Your task to perform on an android device: check battery use Image 0: 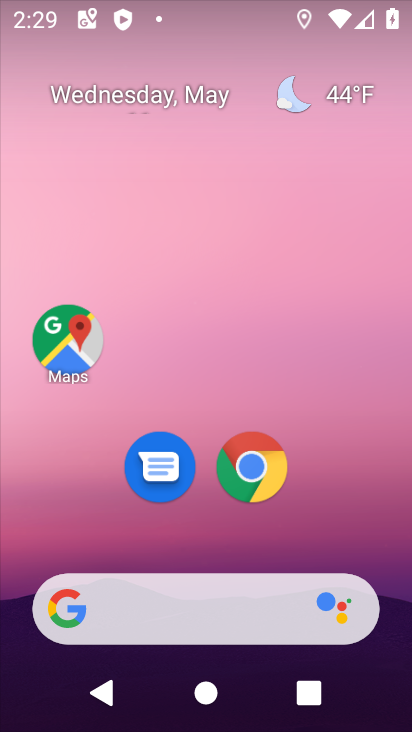
Step 0: click (243, 63)
Your task to perform on an android device: check battery use Image 1: 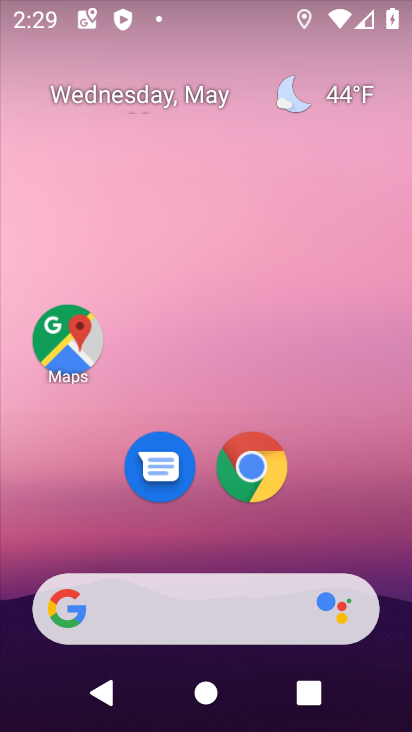
Step 1: drag from (339, 537) to (192, 4)
Your task to perform on an android device: check battery use Image 2: 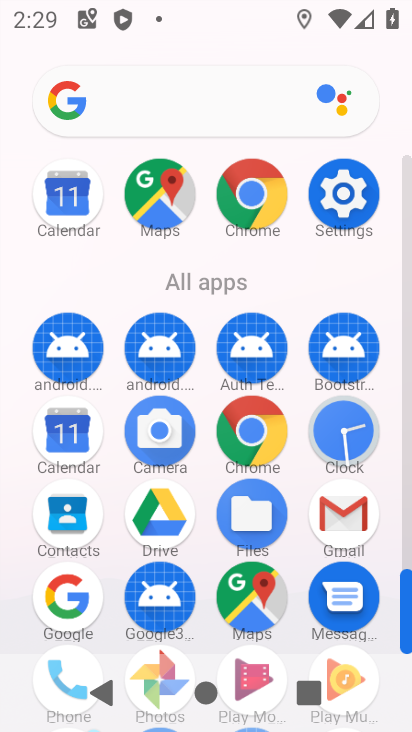
Step 2: click (334, 200)
Your task to perform on an android device: check battery use Image 3: 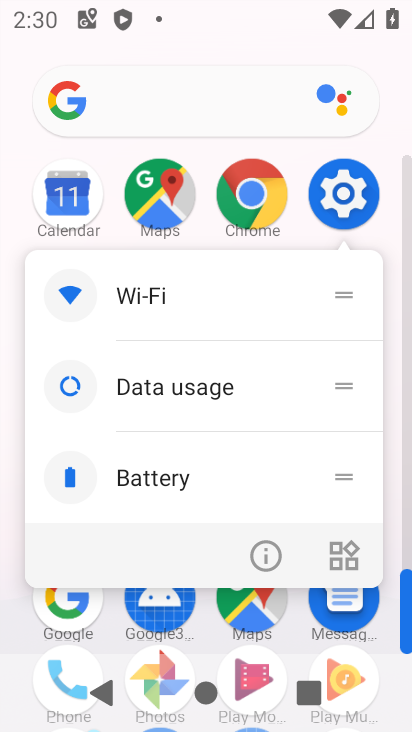
Step 3: click (340, 197)
Your task to perform on an android device: check battery use Image 4: 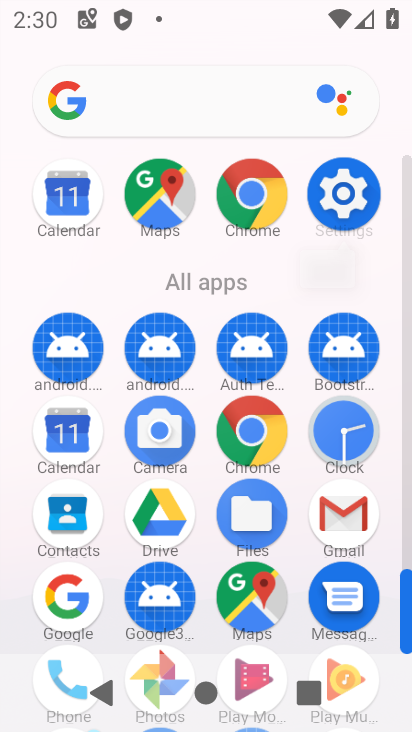
Step 4: click (339, 199)
Your task to perform on an android device: check battery use Image 5: 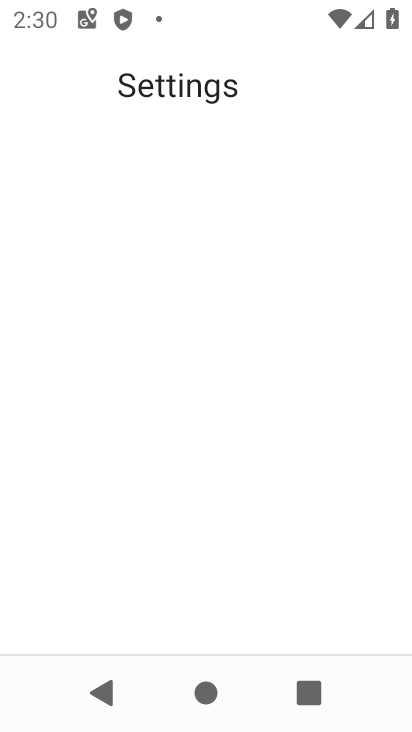
Step 5: click (340, 200)
Your task to perform on an android device: check battery use Image 6: 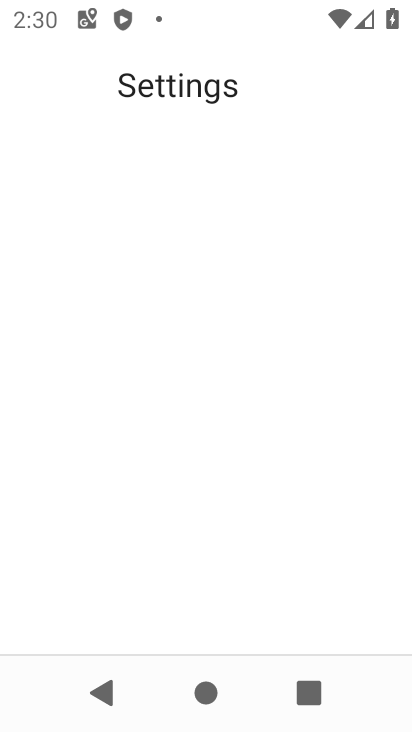
Step 6: click (339, 200)
Your task to perform on an android device: check battery use Image 7: 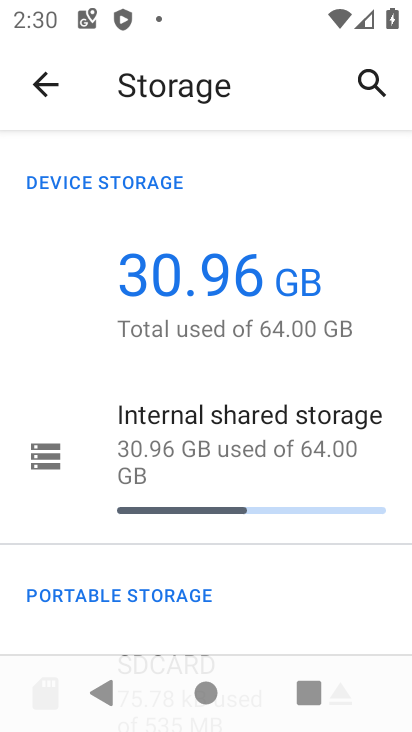
Step 7: click (53, 95)
Your task to perform on an android device: check battery use Image 8: 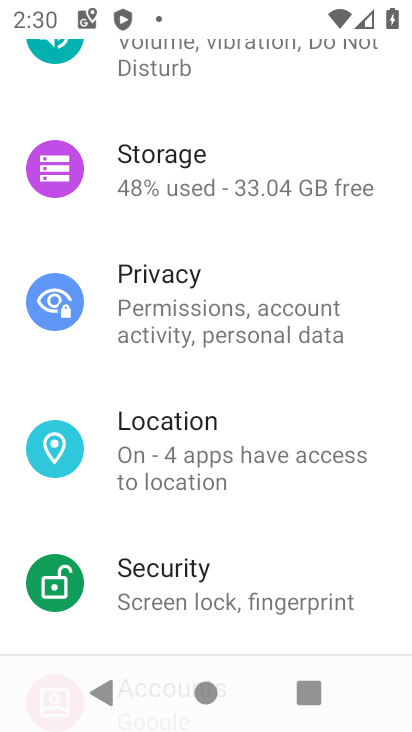
Step 8: drag from (213, 484) to (140, 82)
Your task to perform on an android device: check battery use Image 9: 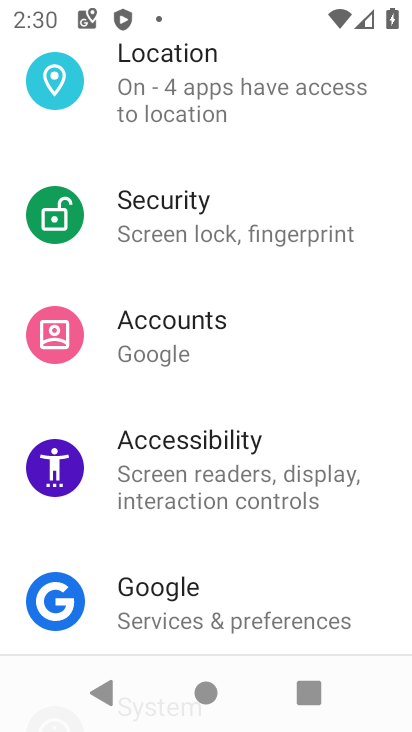
Step 9: drag from (212, 414) to (164, 111)
Your task to perform on an android device: check battery use Image 10: 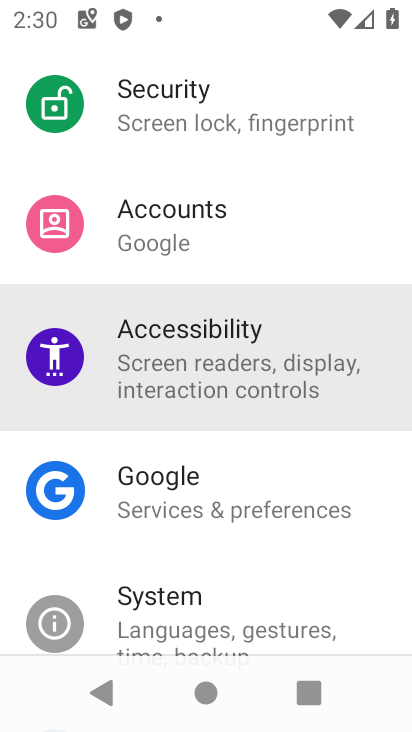
Step 10: drag from (192, 439) to (115, 126)
Your task to perform on an android device: check battery use Image 11: 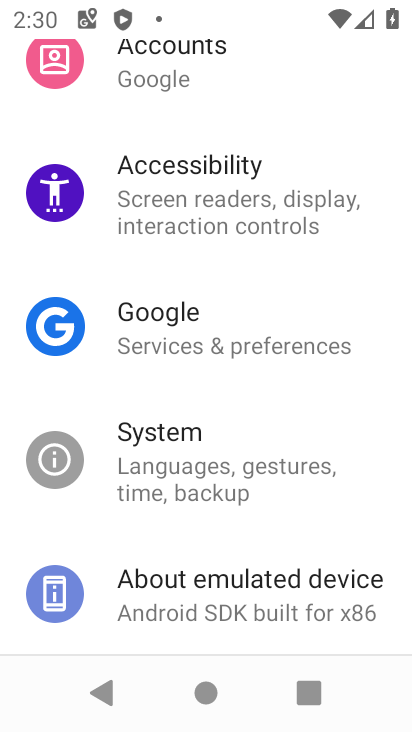
Step 11: drag from (179, 461) to (139, 191)
Your task to perform on an android device: check battery use Image 12: 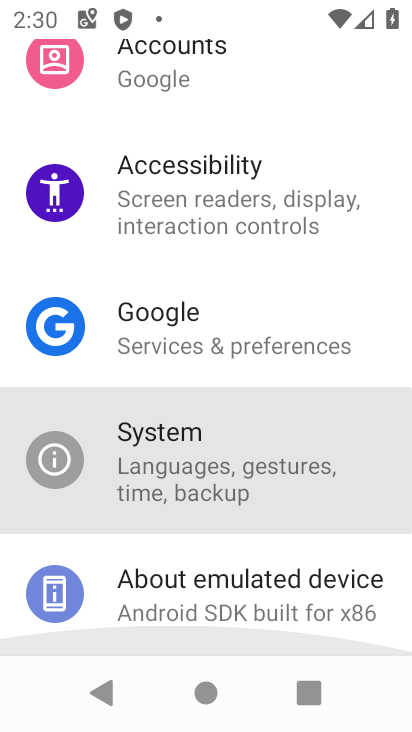
Step 12: drag from (215, 524) to (163, 206)
Your task to perform on an android device: check battery use Image 13: 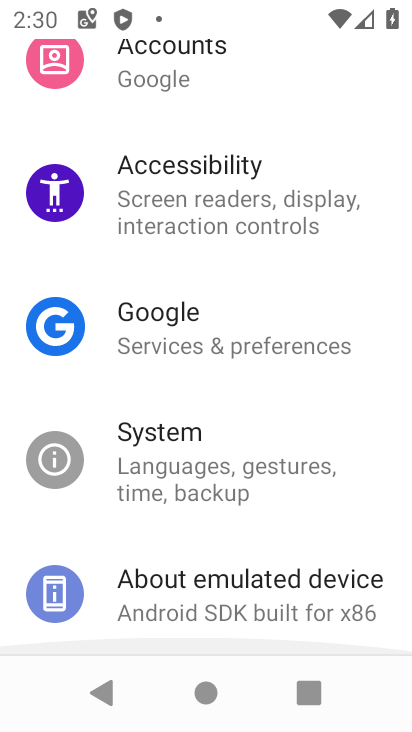
Step 13: drag from (209, 432) to (192, 256)
Your task to perform on an android device: check battery use Image 14: 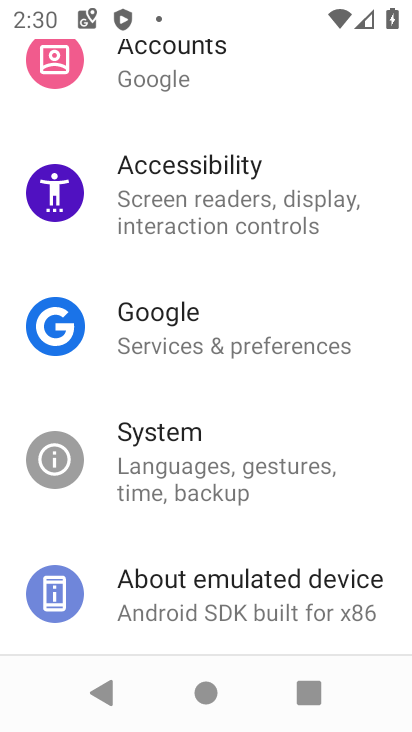
Step 14: click (197, 273)
Your task to perform on an android device: check battery use Image 15: 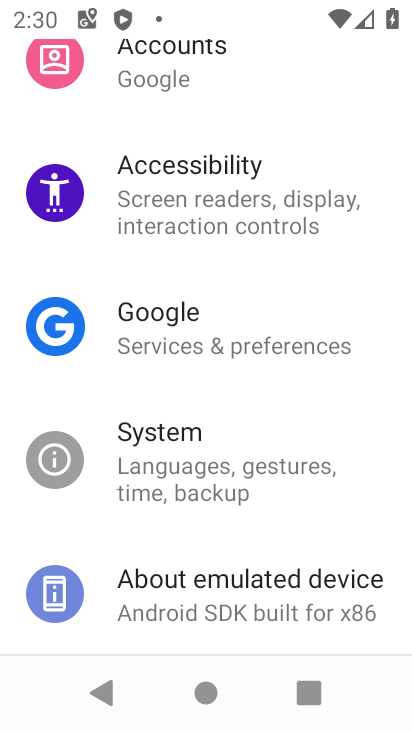
Step 15: drag from (183, 215) to (187, 470)
Your task to perform on an android device: check battery use Image 16: 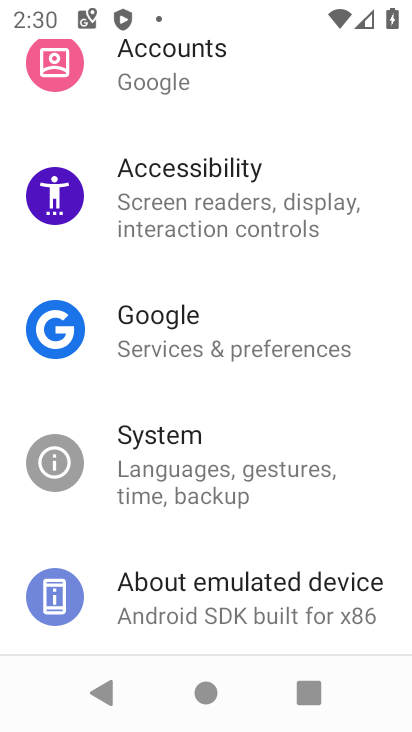
Step 16: drag from (173, 235) to (261, 619)
Your task to perform on an android device: check battery use Image 17: 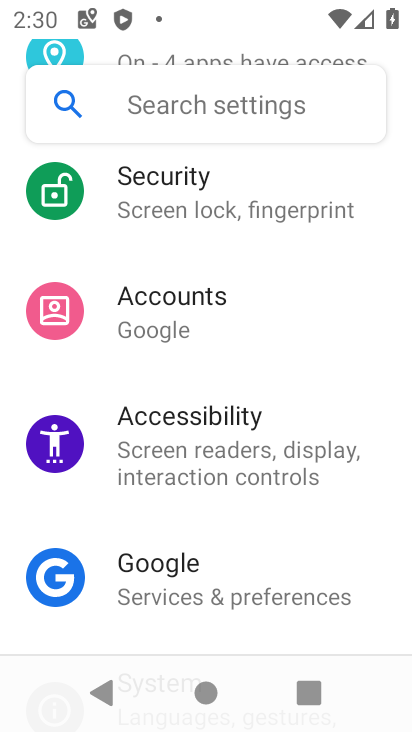
Step 17: drag from (146, 142) to (182, 420)
Your task to perform on an android device: check battery use Image 18: 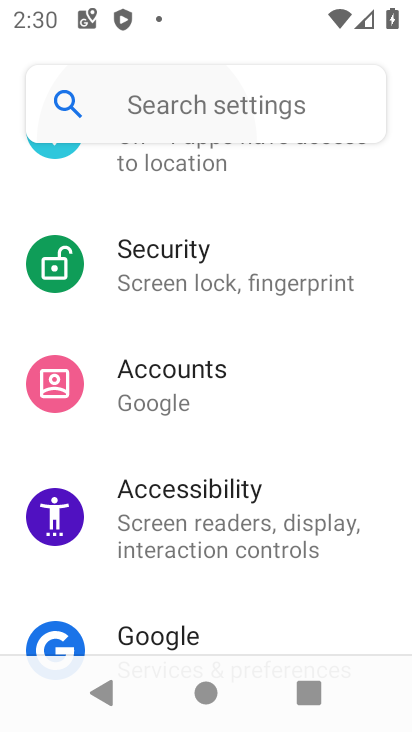
Step 18: drag from (182, 276) to (231, 510)
Your task to perform on an android device: check battery use Image 19: 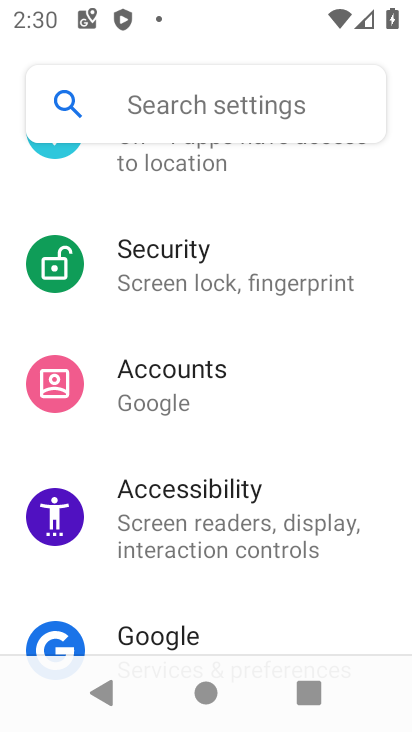
Step 19: drag from (222, 311) to (239, 501)
Your task to perform on an android device: check battery use Image 20: 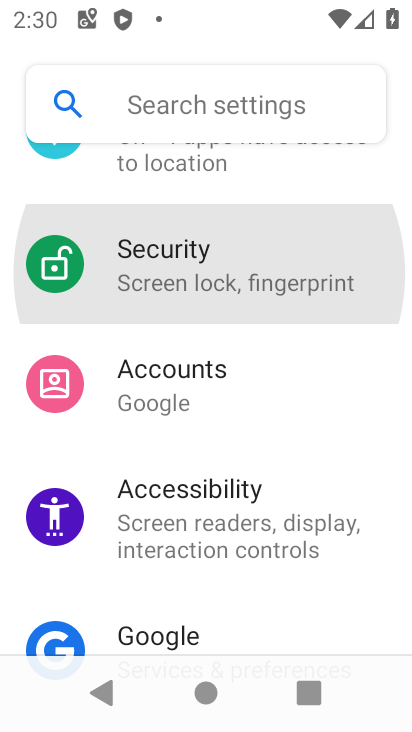
Step 20: drag from (174, 319) to (205, 524)
Your task to perform on an android device: check battery use Image 21: 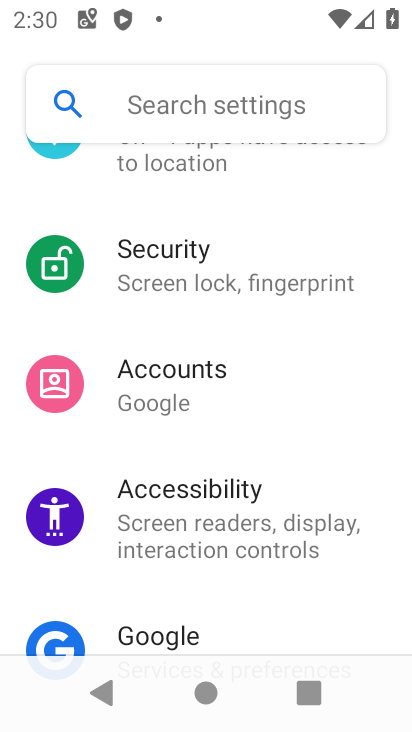
Step 21: drag from (165, 293) to (223, 435)
Your task to perform on an android device: check battery use Image 22: 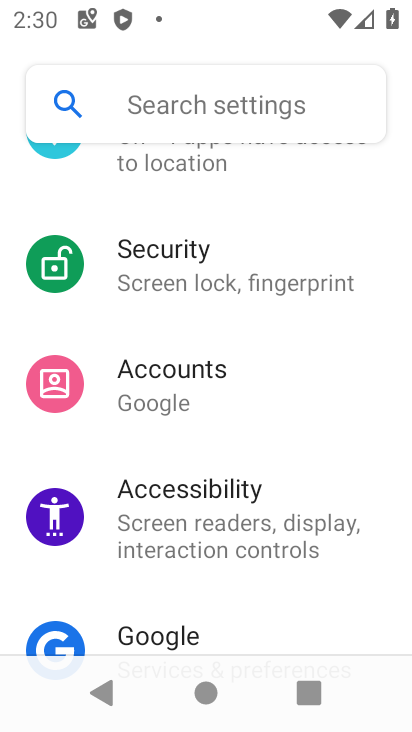
Step 22: drag from (163, 216) to (200, 490)
Your task to perform on an android device: check battery use Image 23: 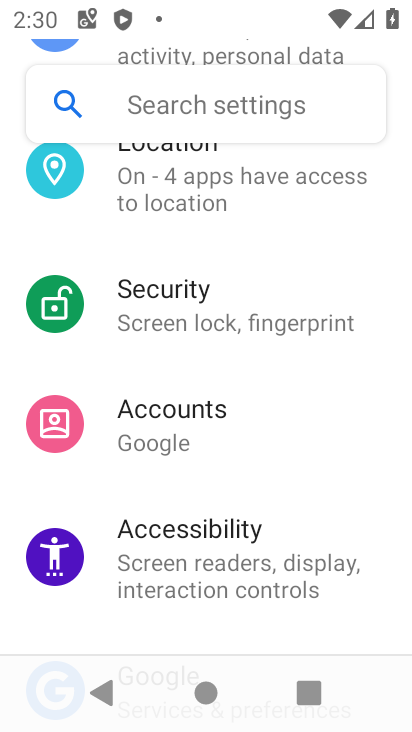
Step 23: drag from (188, 406) to (207, 482)
Your task to perform on an android device: check battery use Image 24: 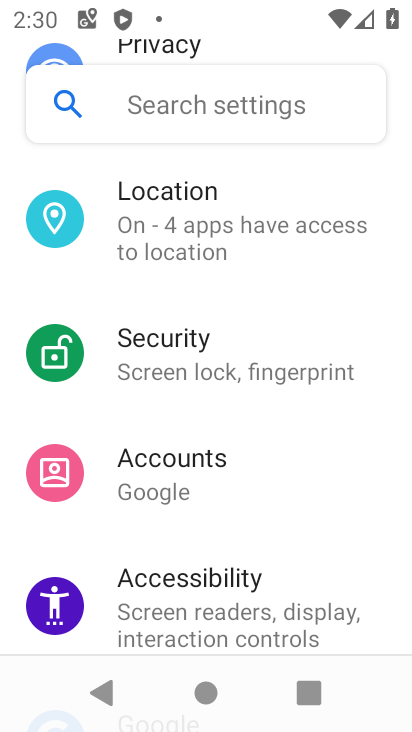
Step 24: drag from (156, 286) to (158, 643)
Your task to perform on an android device: check battery use Image 25: 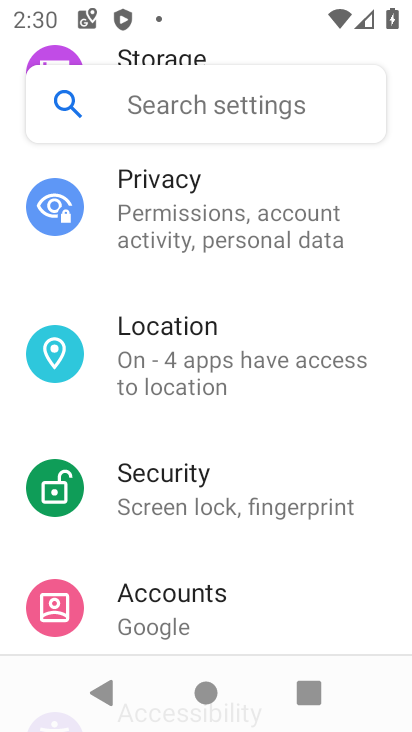
Step 25: drag from (111, 256) to (172, 485)
Your task to perform on an android device: check battery use Image 26: 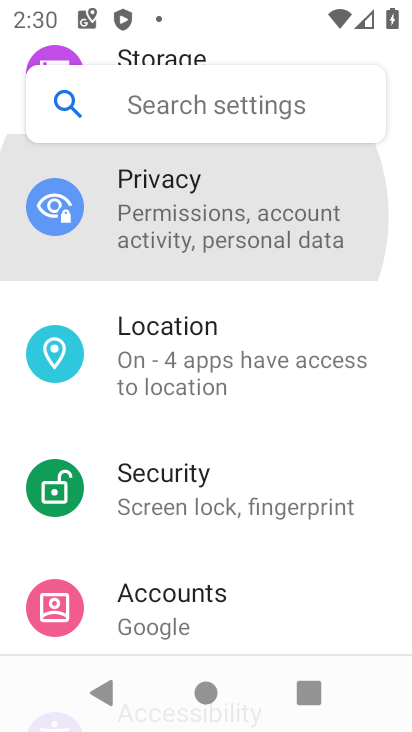
Step 26: drag from (137, 268) to (168, 475)
Your task to perform on an android device: check battery use Image 27: 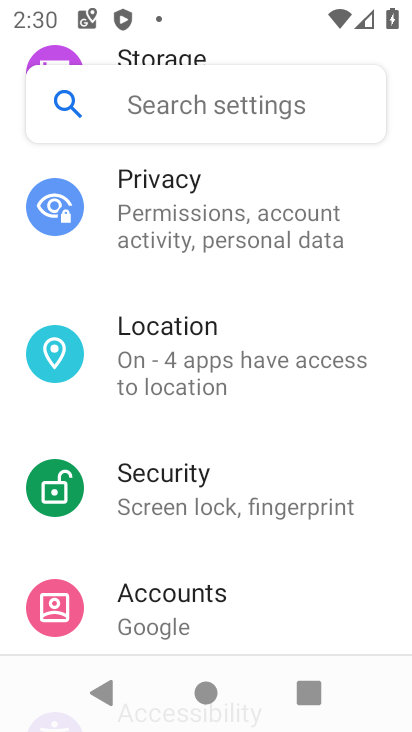
Step 27: drag from (166, 251) to (186, 520)
Your task to perform on an android device: check battery use Image 28: 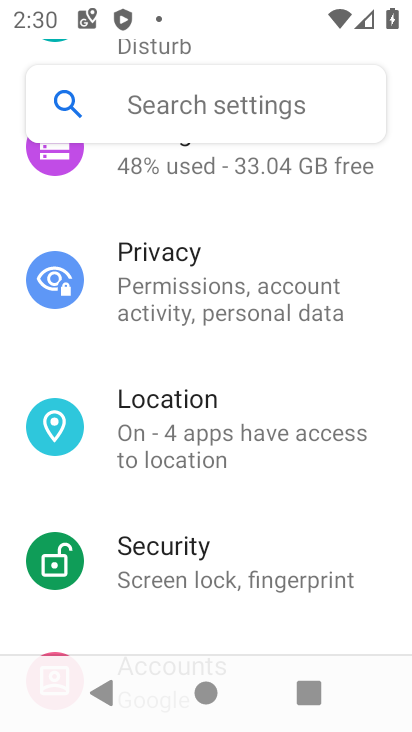
Step 28: drag from (215, 325) to (240, 491)
Your task to perform on an android device: check battery use Image 29: 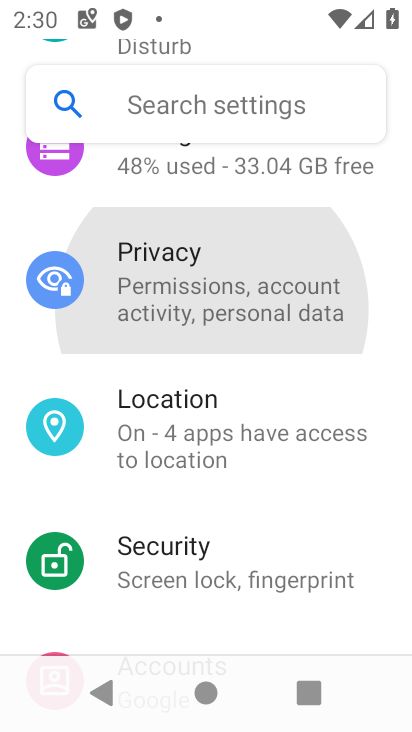
Step 29: drag from (210, 111) to (254, 422)
Your task to perform on an android device: check battery use Image 30: 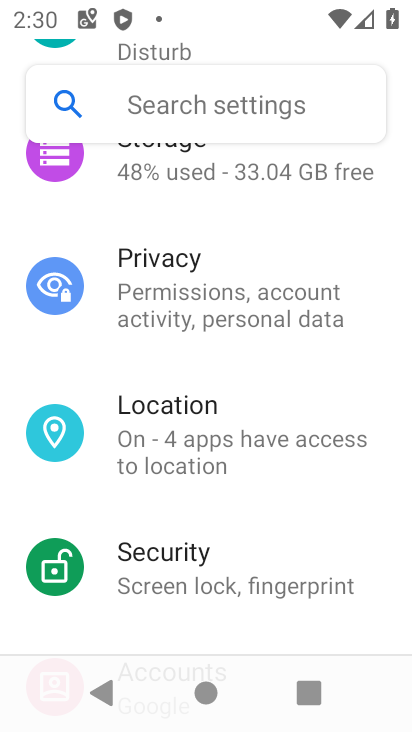
Step 30: click (208, 444)
Your task to perform on an android device: check battery use Image 31: 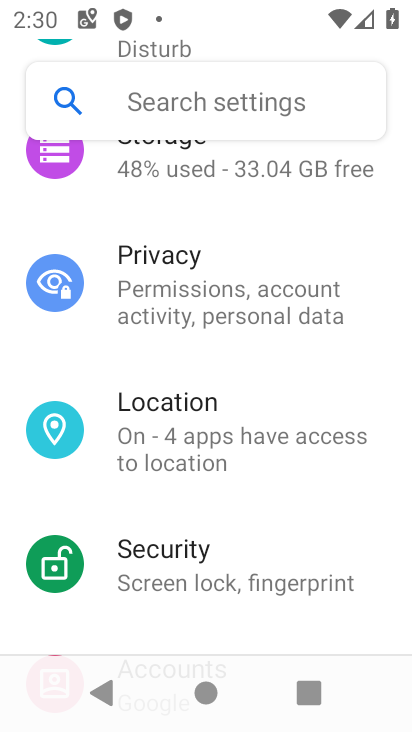
Step 31: drag from (182, 382) to (185, 548)
Your task to perform on an android device: check battery use Image 32: 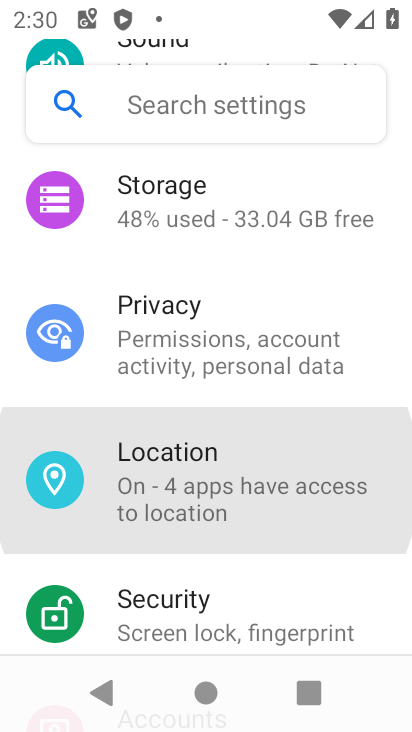
Step 32: drag from (230, 200) to (181, 446)
Your task to perform on an android device: check battery use Image 33: 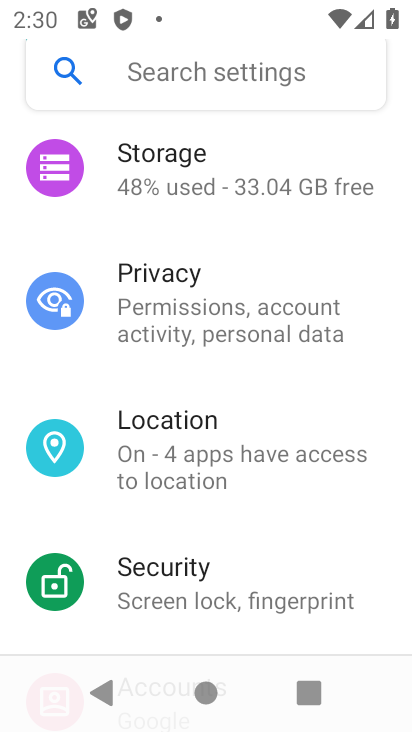
Step 33: click (163, 171)
Your task to perform on an android device: check battery use Image 34: 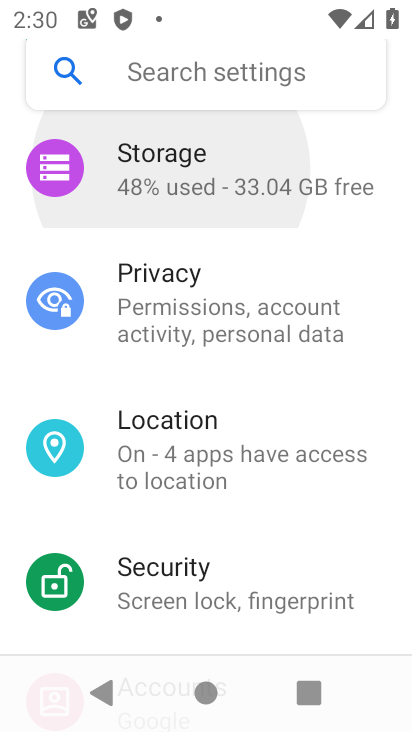
Step 34: click (162, 173)
Your task to perform on an android device: check battery use Image 35: 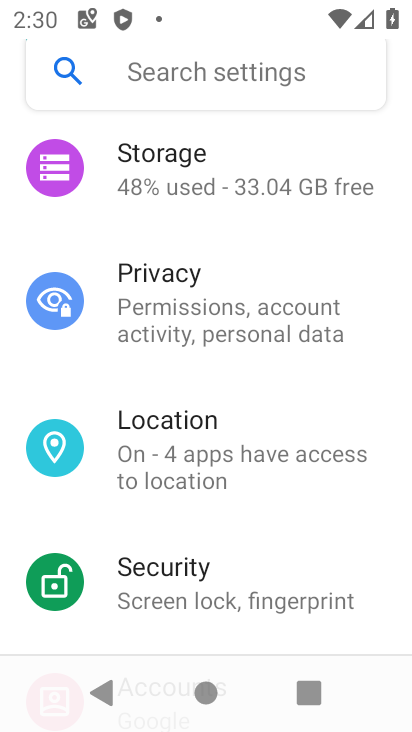
Step 35: click (164, 177)
Your task to perform on an android device: check battery use Image 36: 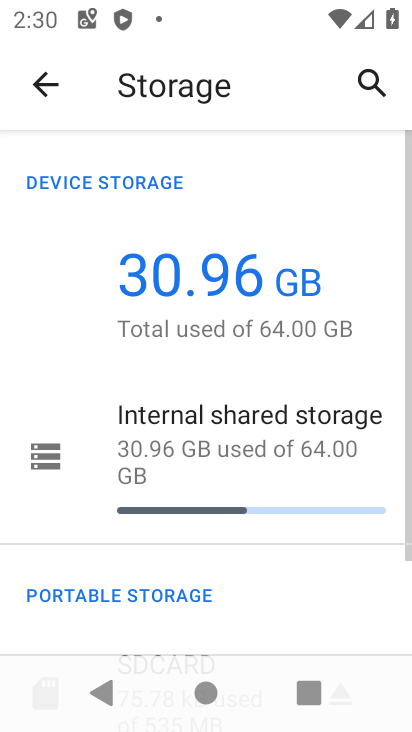
Step 36: drag from (173, 417) to (120, 99)
Your task to perform on an android device: check battery use Image 37: 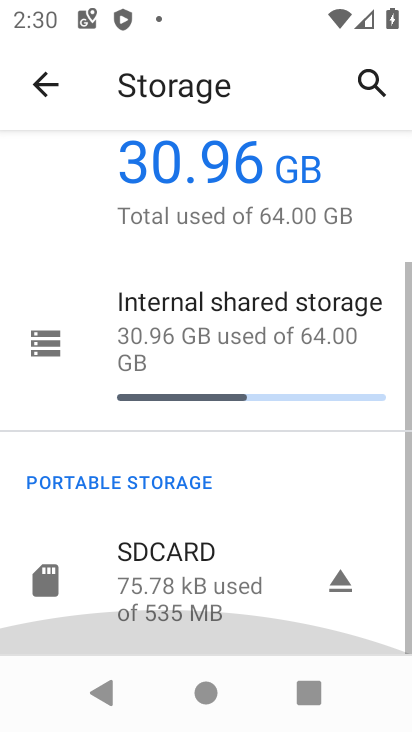
Step 37: drag from (124, 370) to (73, 18)
Your task to perform on an android device: check battery use Image 38: 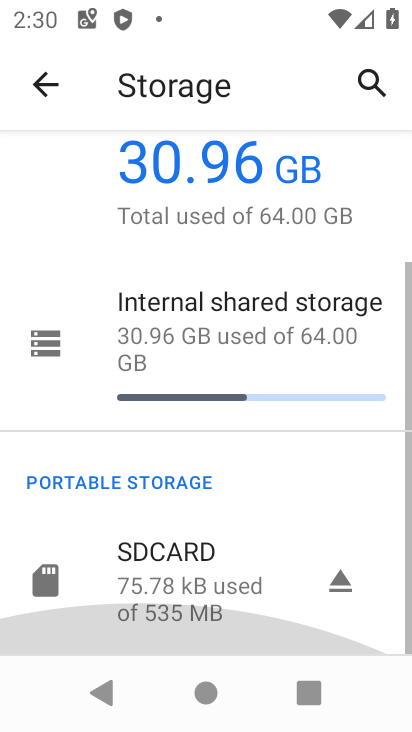
Step 38: drag from (136, 264) to (134, 129)
Your task to perform on an android device: check battery use Image 39: 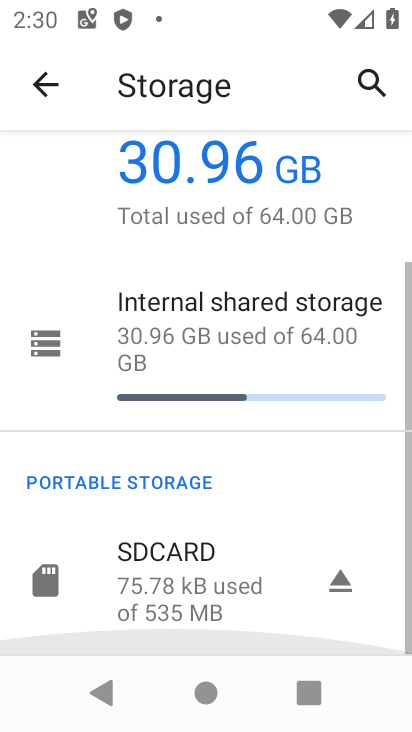
Step 39: drag from (172, 510) to (130, 123)
Your task to perform on an android device: check battery use Image 40: 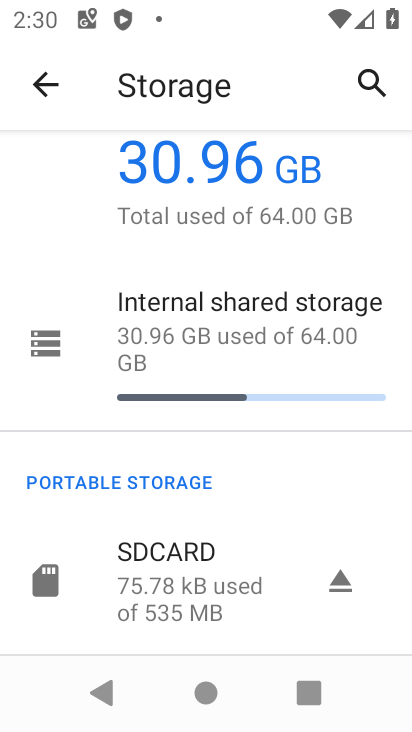
Step 40: click (35, 79)
Your task to perform on an android device: check battery use Image 41: 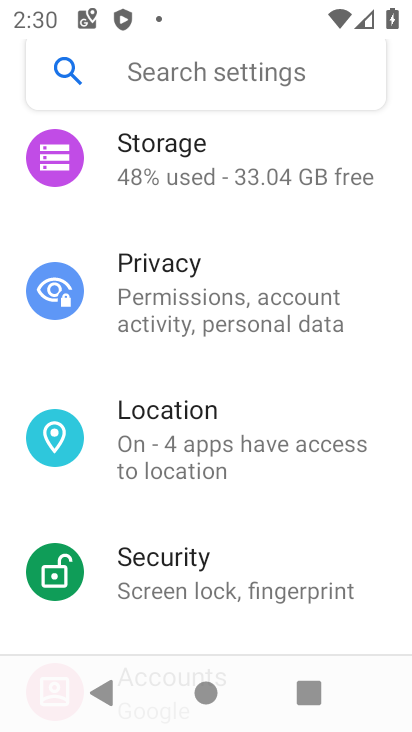
Step 41: task complete